Your task to perform on an android device: Open Google Maps Image 0: 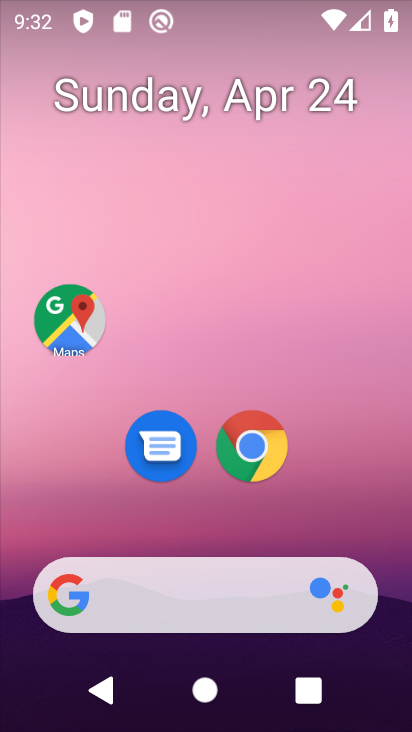
Step 0: click (76, 333)
Your task to perform on an android device: Open Google Maps Image 1: 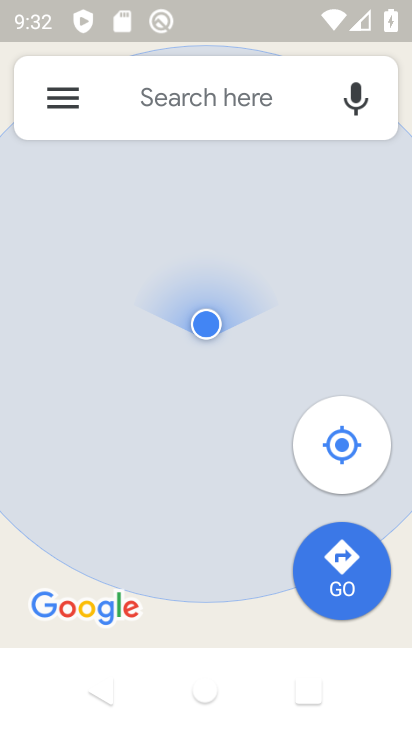
Step 1: task complete